Your task to perform on an android device: Search for a new highlighter Image 0: 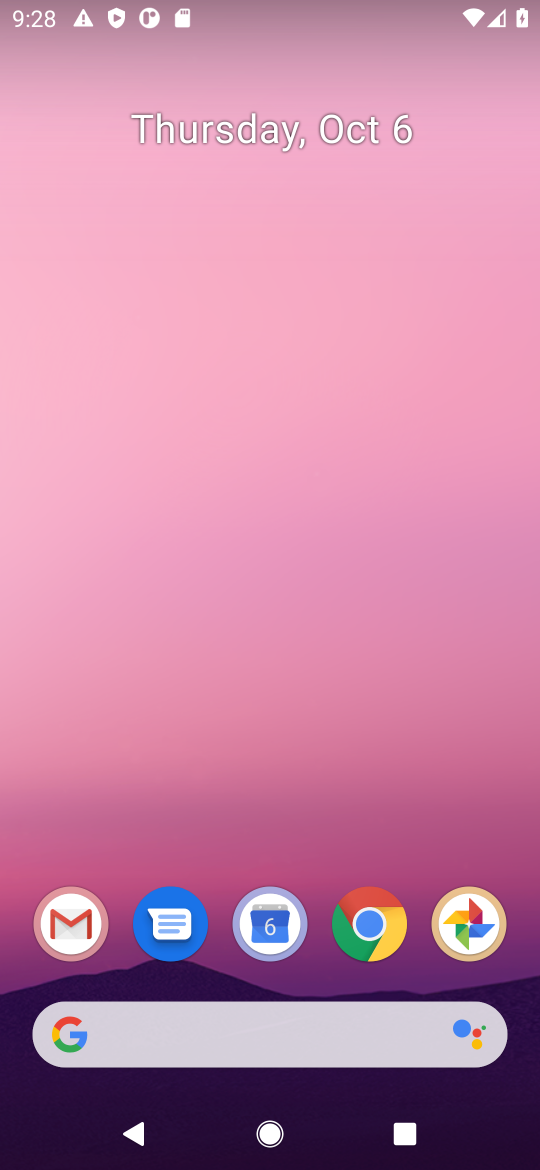
Step 0: click (380, 926)
Your task to perform on an android device: Search for a new highlighter Image 1: 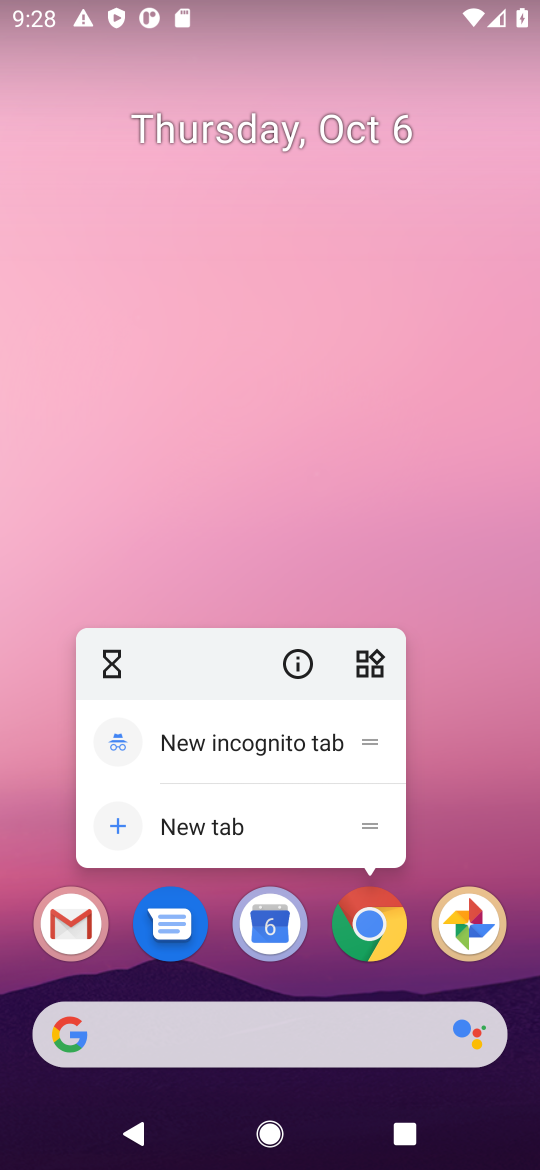
Step 1: click (370, 923)
Your task to perform on an android device: Search for a new highlighter Image 2: 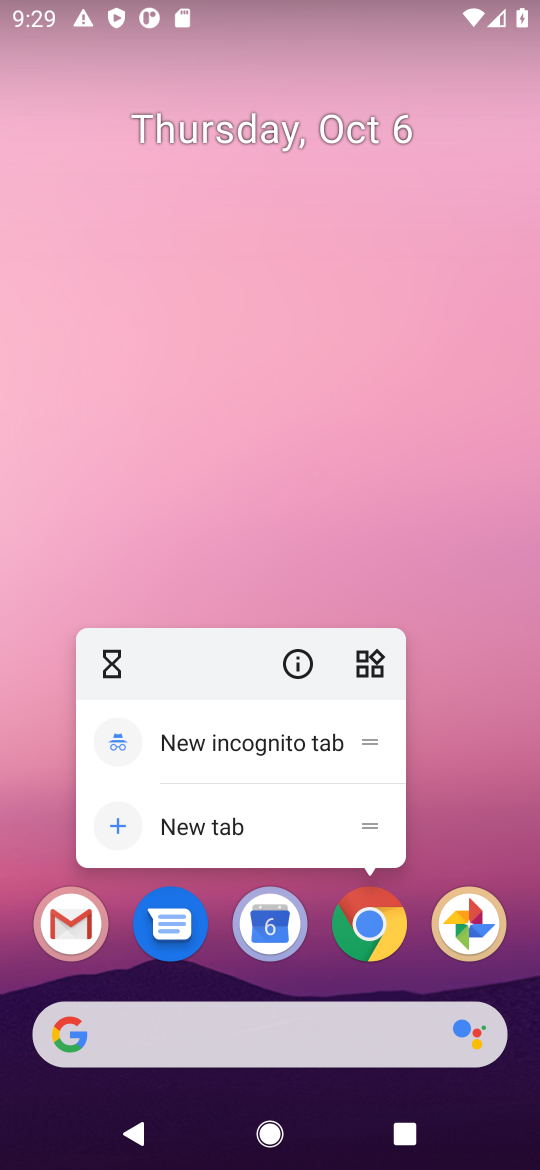
Step 2: click (367, 928)
Your task to perform on an android device: Search for a new highlighter Image 3: 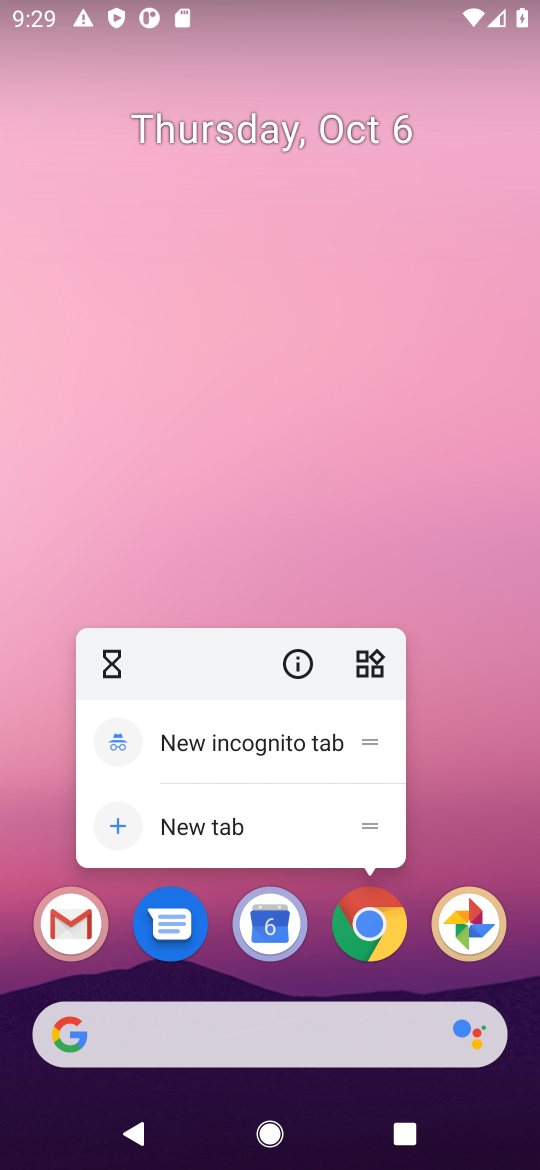
Step 3: click (367, 926)
Your task to perform on an android device: Search for a new highlighter Image 4: 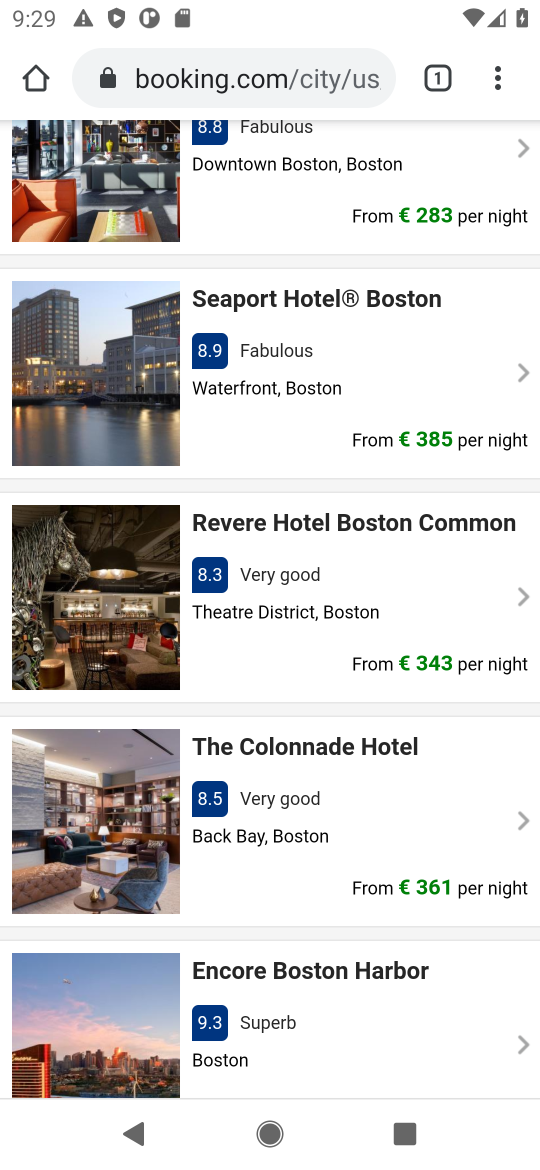
Step 4: click (333, 72)
Your task to perform on an android device: Search for a new highlighter Image 5: 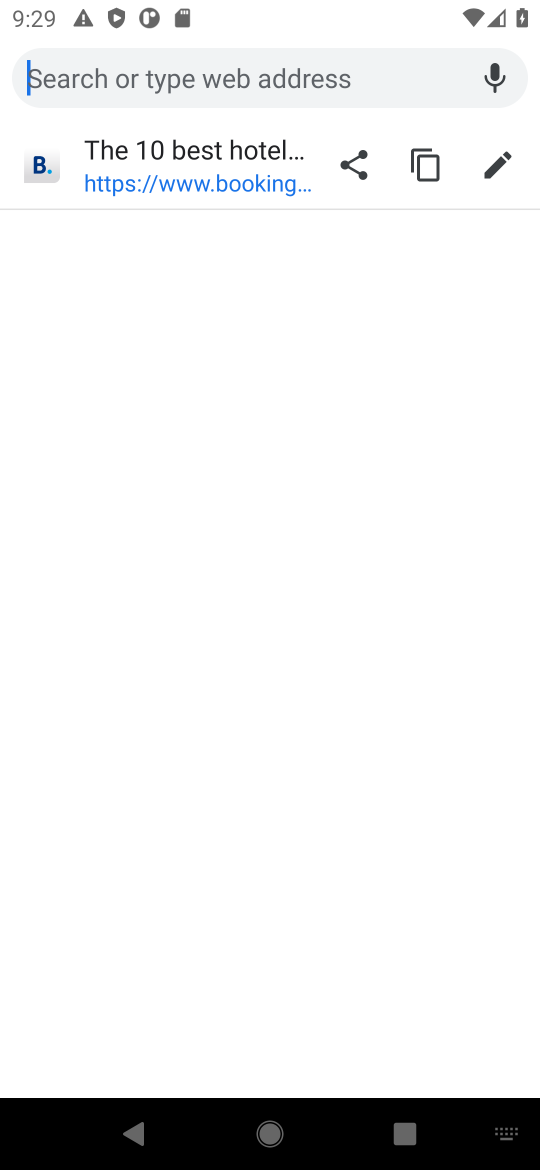
Step 5: type "new highlighter"
Your task to perform on an android device: Search for a new highlighter Image 6: 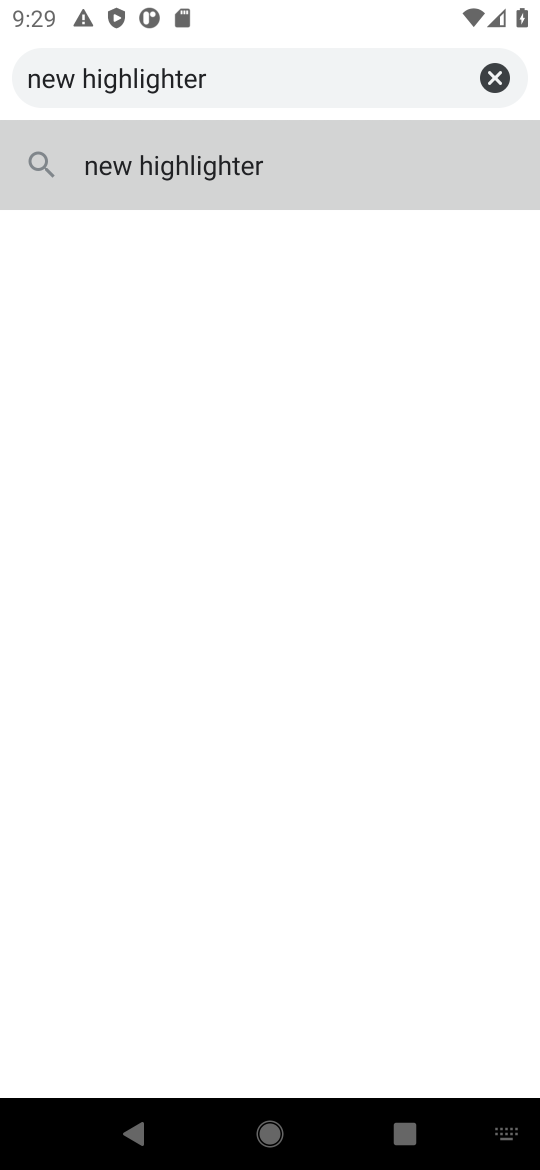
Step 6: click (157, 156)
Your task to perform on an android device: Search for a new highlighter Image 7: 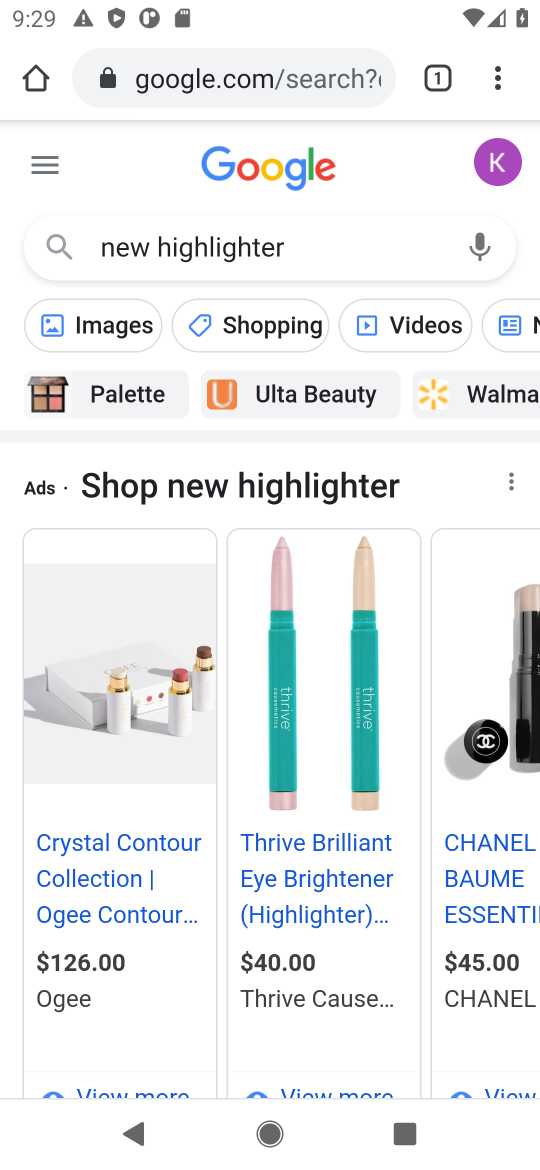
Step 7: drag from (172, 963) to (427, 337)
Your task to perform on an android device: Search for a new highlighter Image 8: 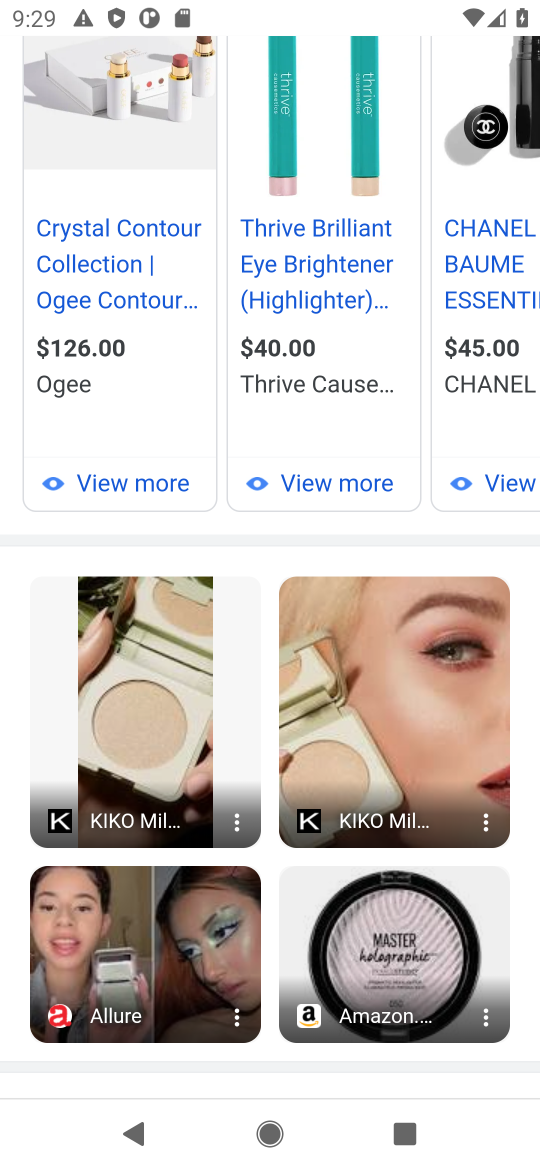
Step 8: drag from (176, 936) to (382, 400)
Your task to perform on an android device: Search for a new highlighter Image 9: 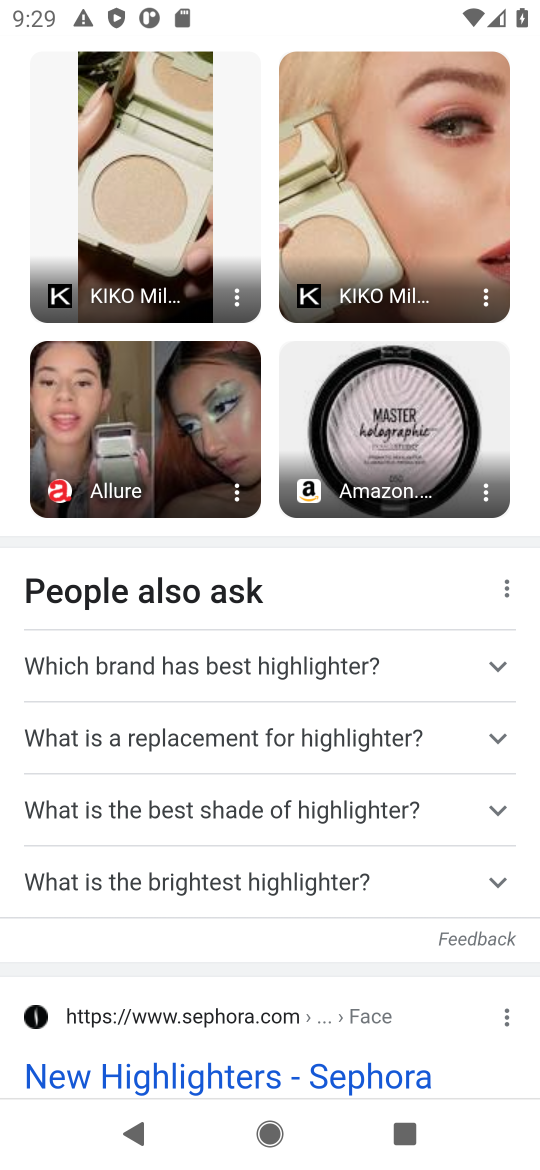
Step 9: drag from (279, 877) to (450, 360)
Your task to perform on an android device: Search for a new highlighter Image 10: 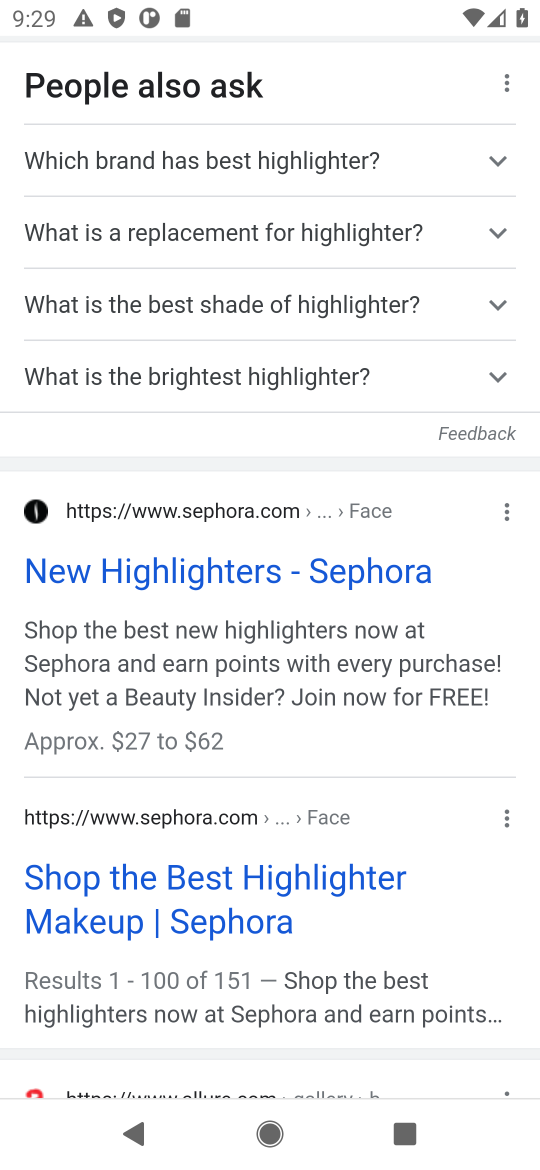
Step 10: click (235, 569)
Your task to perform on an android device: Search for a new highlighter Image 11: 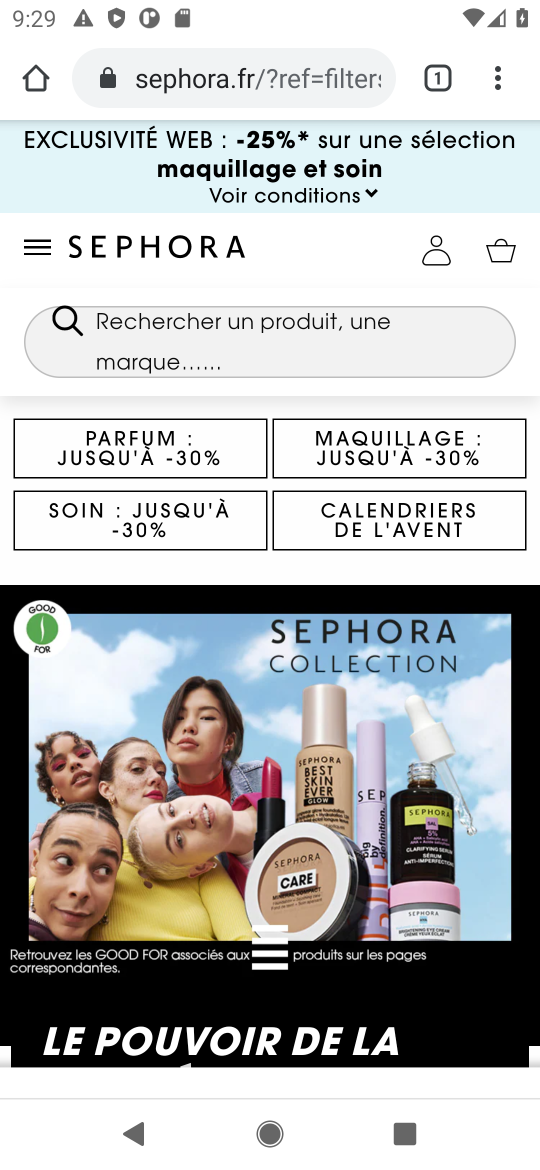
Step 11: drag from (178, 976) to (444, 365)
Your task to perform on an android device: Search for a new highlighter Image 12: 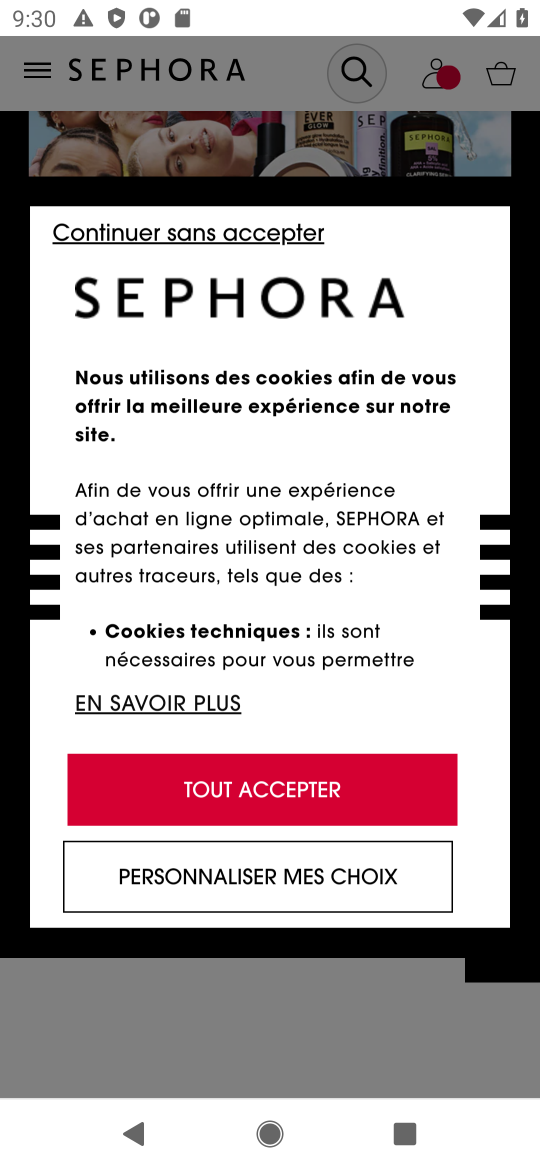
Step 12: click (336, 802)
Your task to perform on an android device: Search for a new highlighter Image 13: 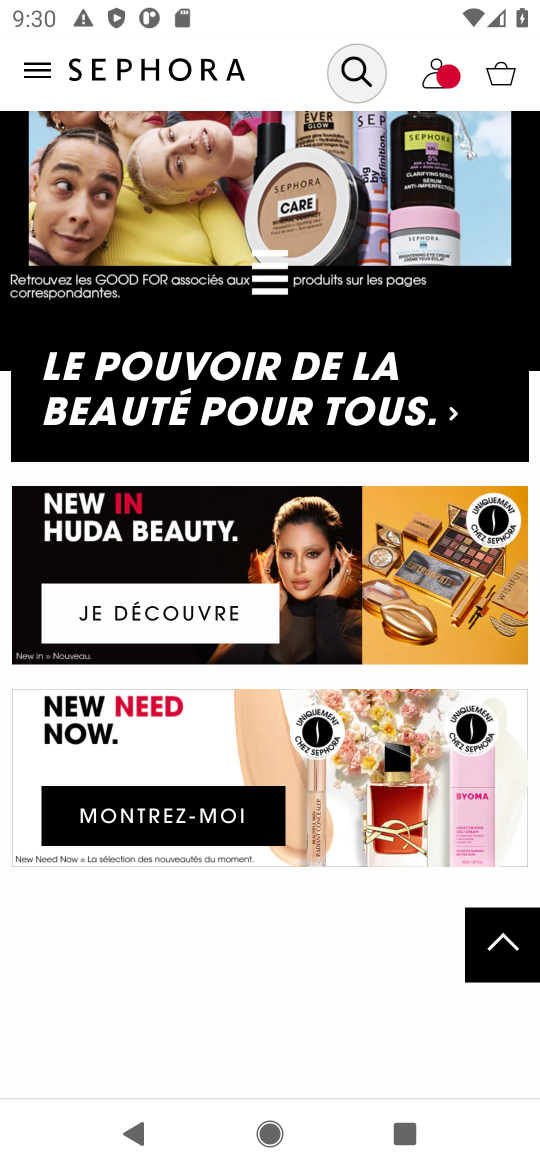
Step 13: task complete